Your task to perform on an android device: open chrome privacy settings Image 0: 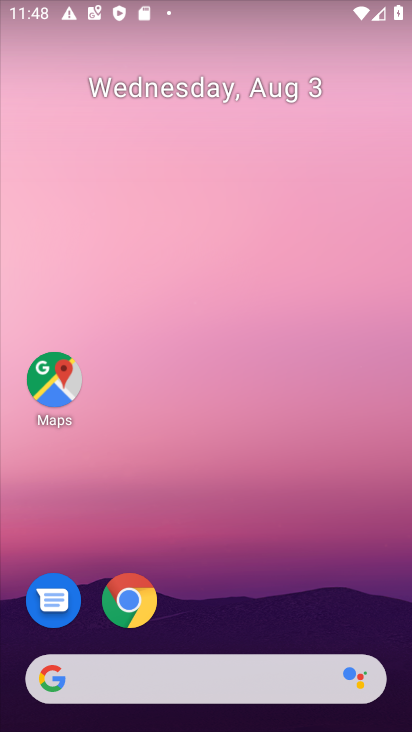
Step 0: click (125, 589)
Your task to perform on an android device: open chrome privacy settings Image 1: 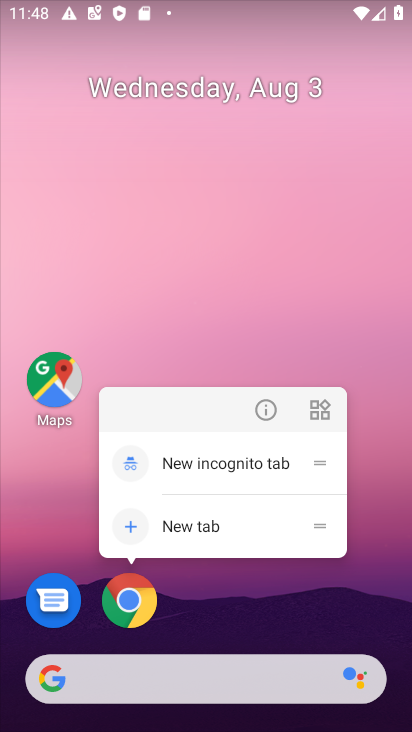
Step 1: click (125, 590)
Your task to perform on an android device: open chrome privacy settings Image 2: 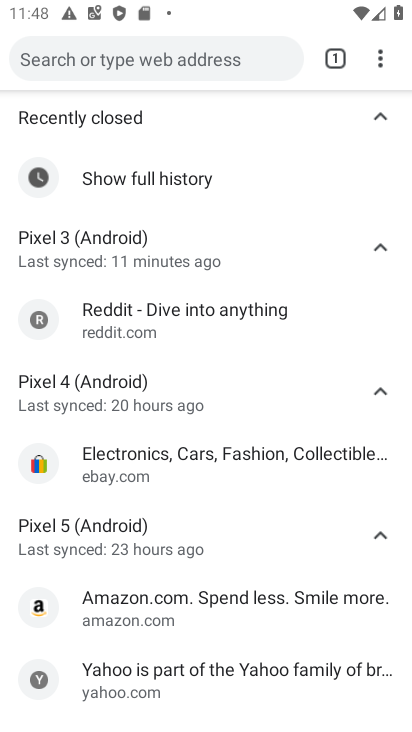
Step 2: drag from (377, 59) to (259, 553)
Your task to perform on an android device: open chrome privacy settings Image 3: 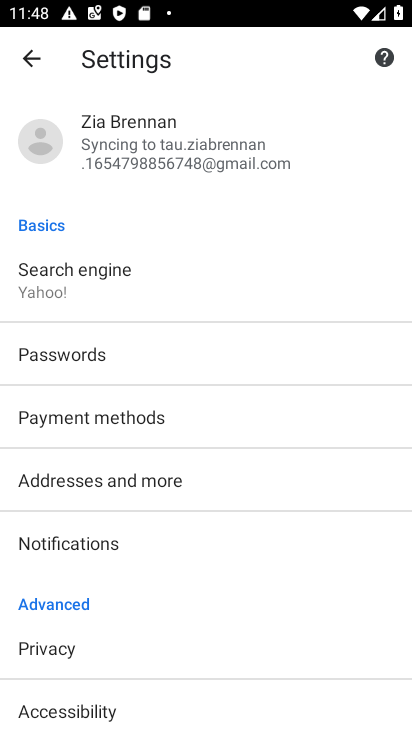
Step 3: drag from (169, 613) to (276, 397)
Your task to perform on an android device: open chrome privacy settings Image 4: 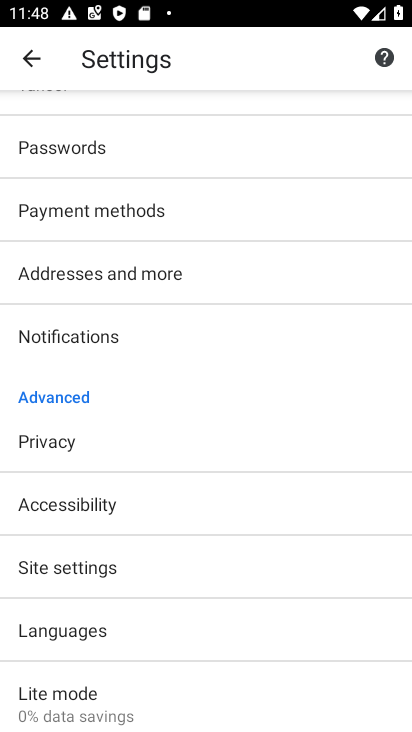
Step 4: click (64, 438)
Your task to perform on an android device: open chrome privacy settings Image 5: 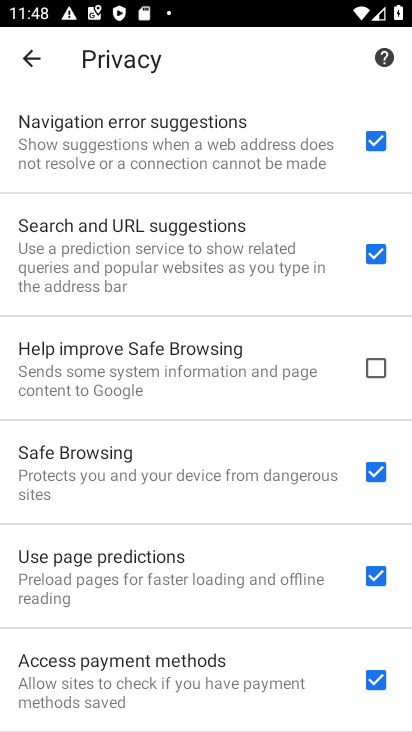
Step 5: task complete